Your task to perform on an android device: snooze an email in the gmail app Image 0: 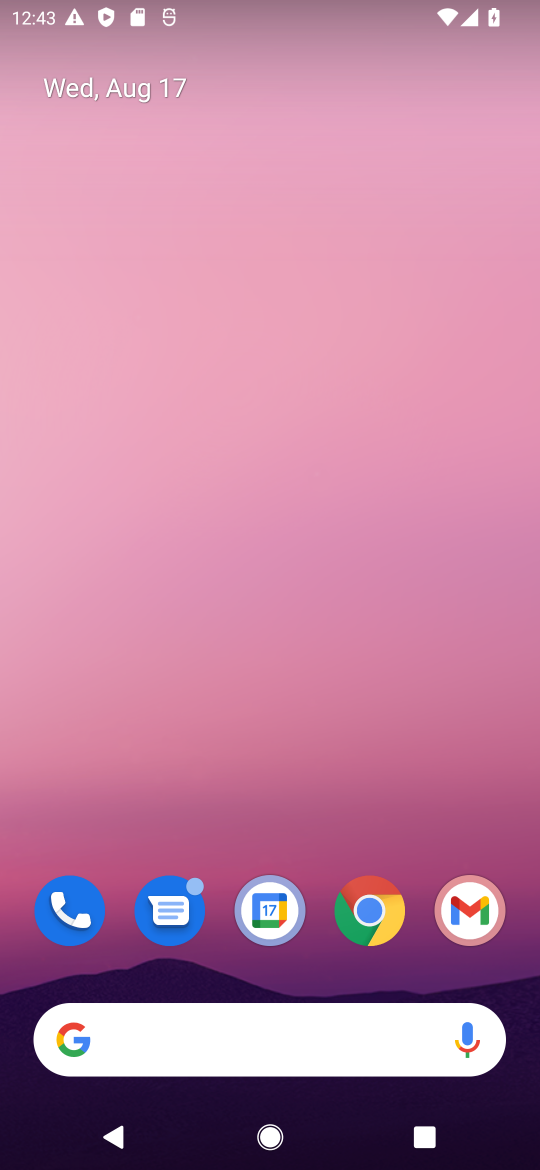
Step 0: click (481, 911)
Your task to perform on an android device: snooze an email in the gmail app Image 1: 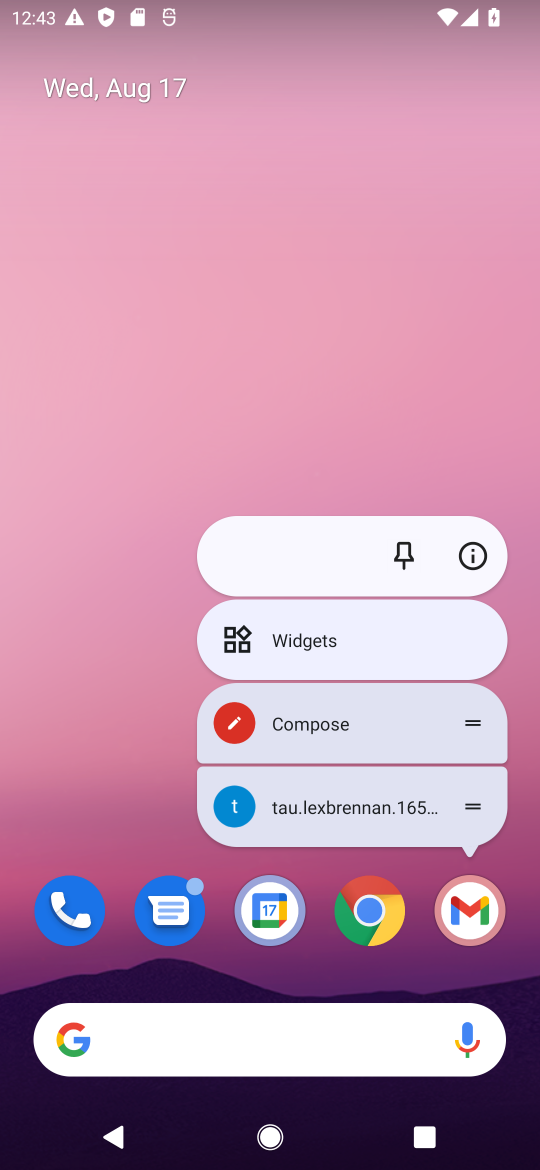
Step 1: click (482, 917)
Your task to perform on an android device: snooze an email in the gmail app Image 2: 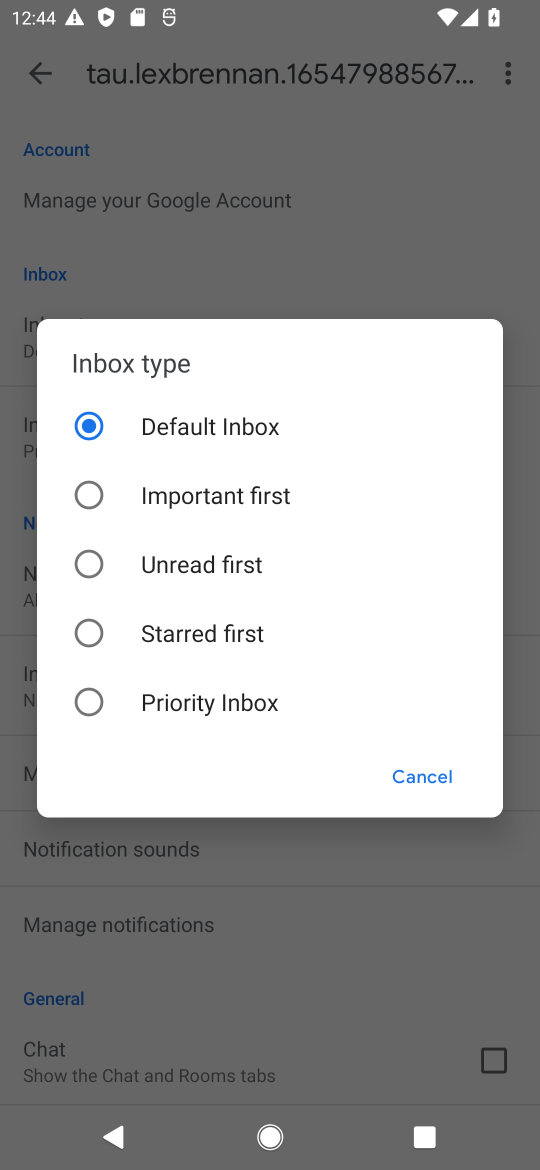
Step 2: click (423, 766)
Your task to perform on an android device: snooze an email in the gmail app Image 3: 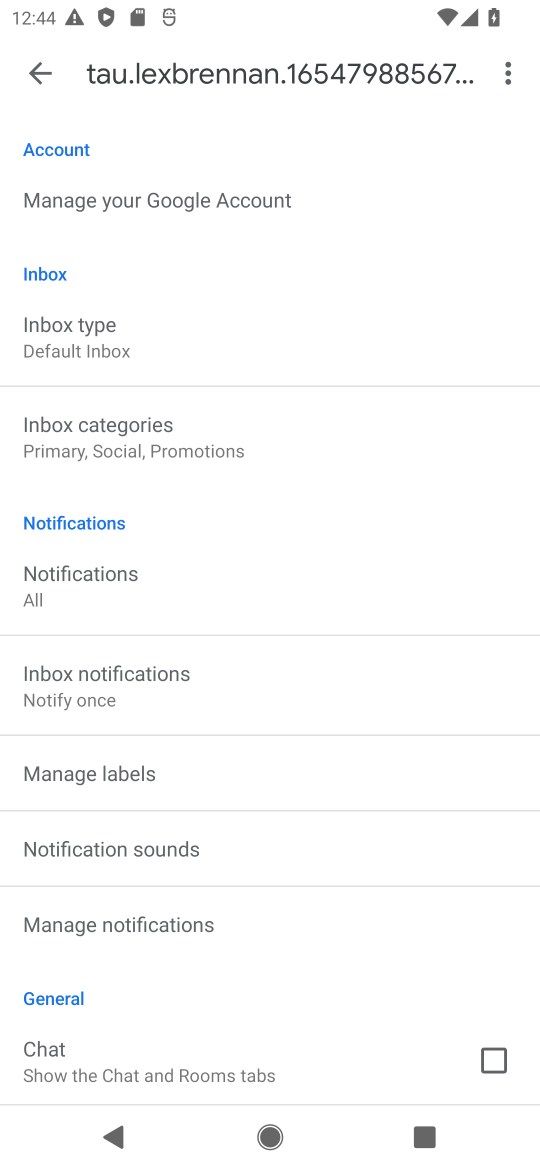
Step 3: press back button
Your task to perform on an android device: snooze an email in the gmail app Image 4: 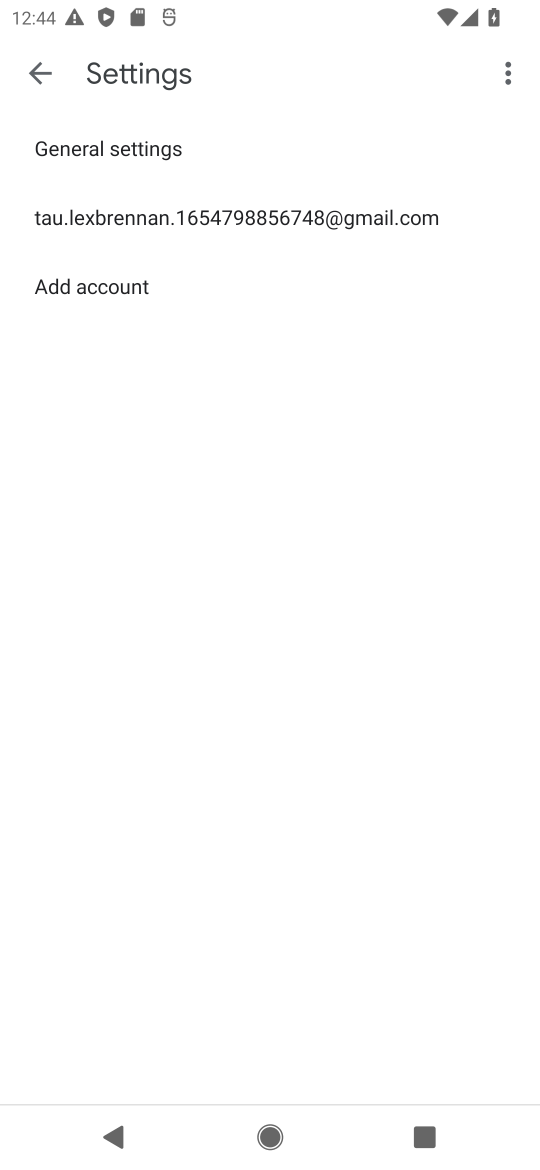
Step 4: press back button
Your task to perform on an android device: snooze an email in the gmail app Image 5: 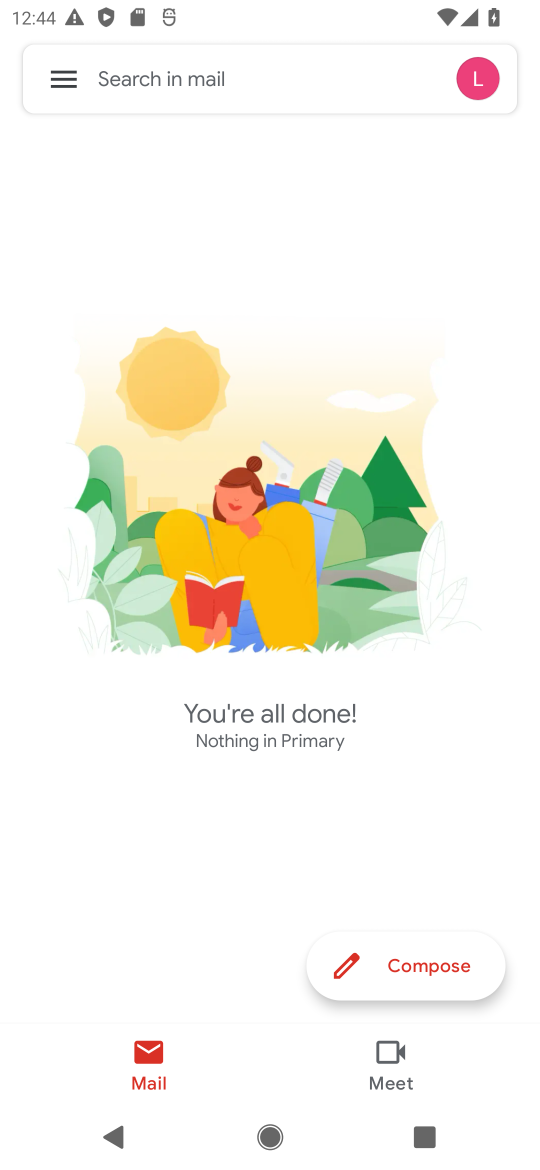
Step 5: click (15, 76)
Your task to perform on an android device: snooze an email in the gmail app Image 6: 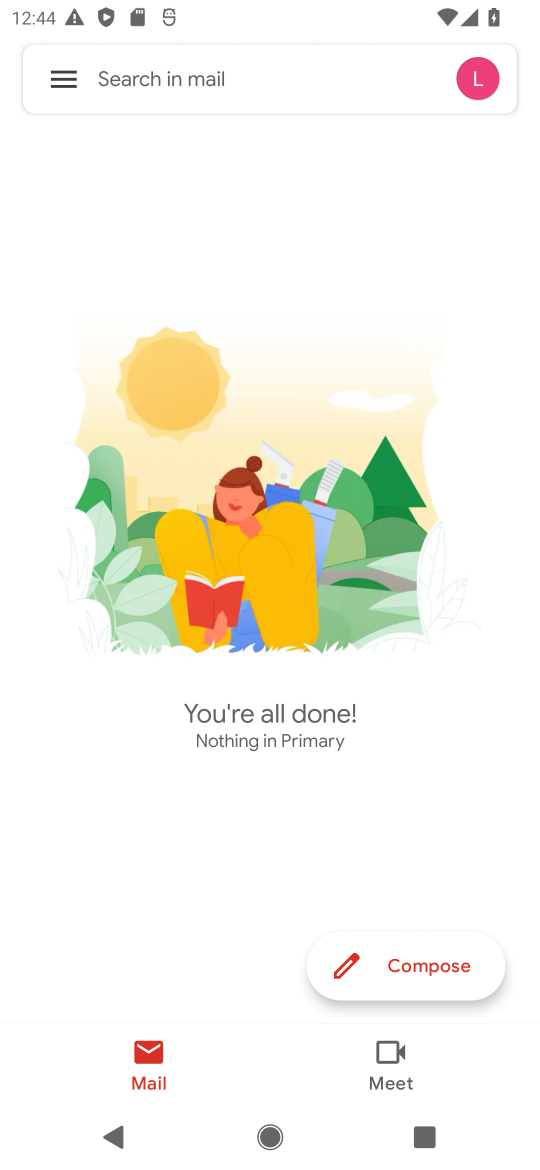
Step 6: click (66, 75)
Your task to perform on an android device: snooze an email in the gmail app Image 7: 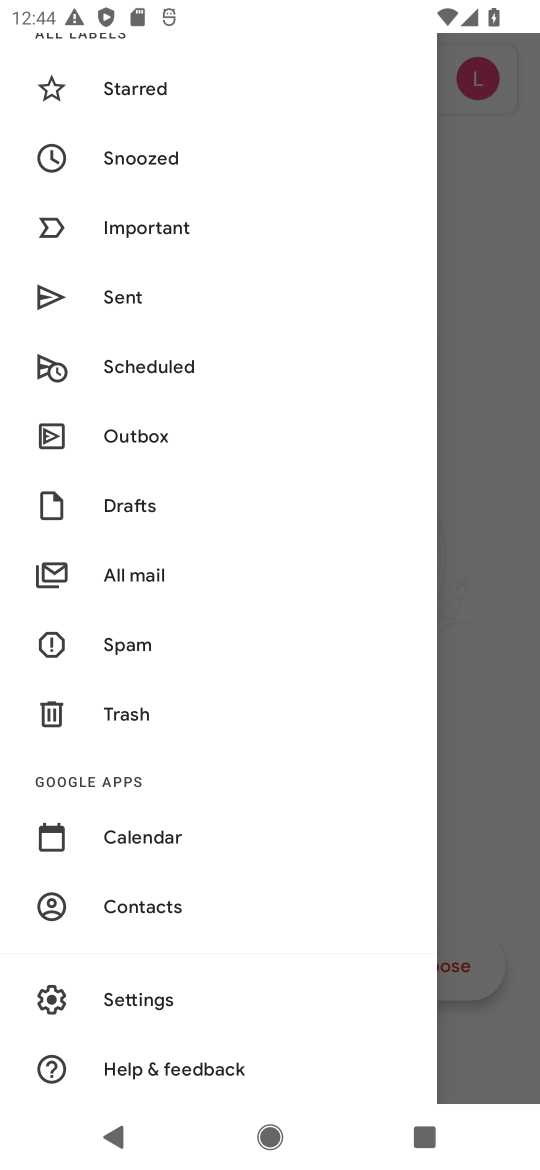
Step 7: click (147, 568)
Your task to perform on an android device: snooze an email in the gmail app Image 8: 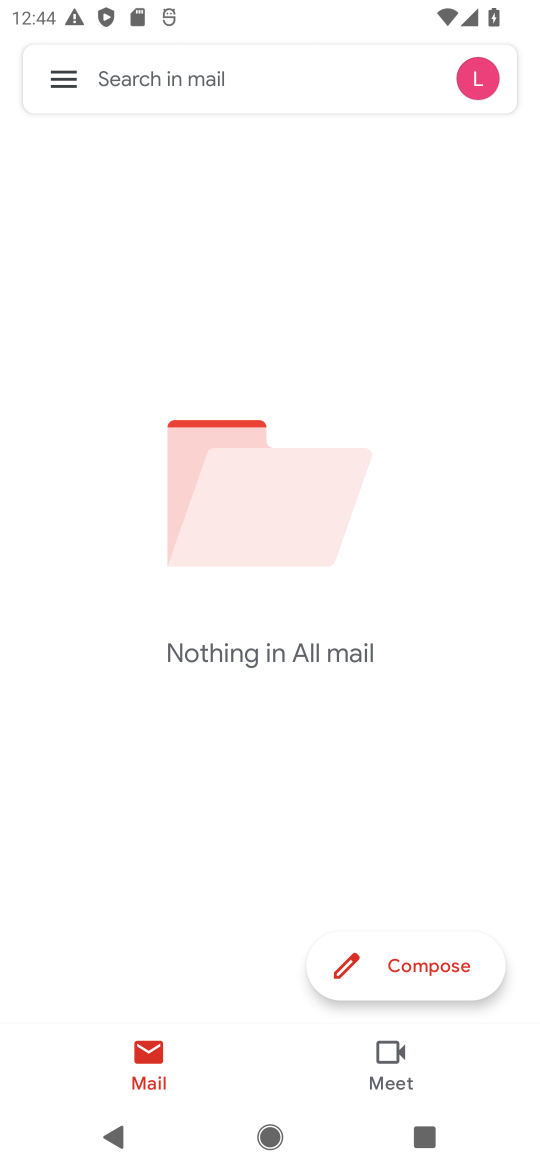
Step 8: task complete